Your task to perform on an android device: remove spam from my inbox in the gmail app Image 0: 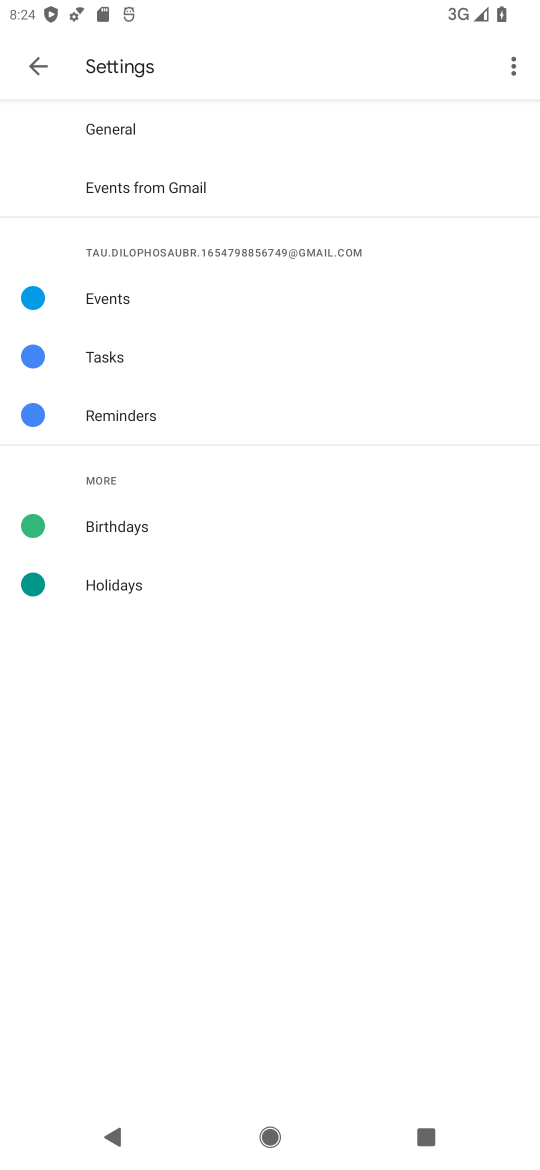
Step 0: press home button
Your task to perform on an android device: remove spam from my inbox in the gmail app Image 1: 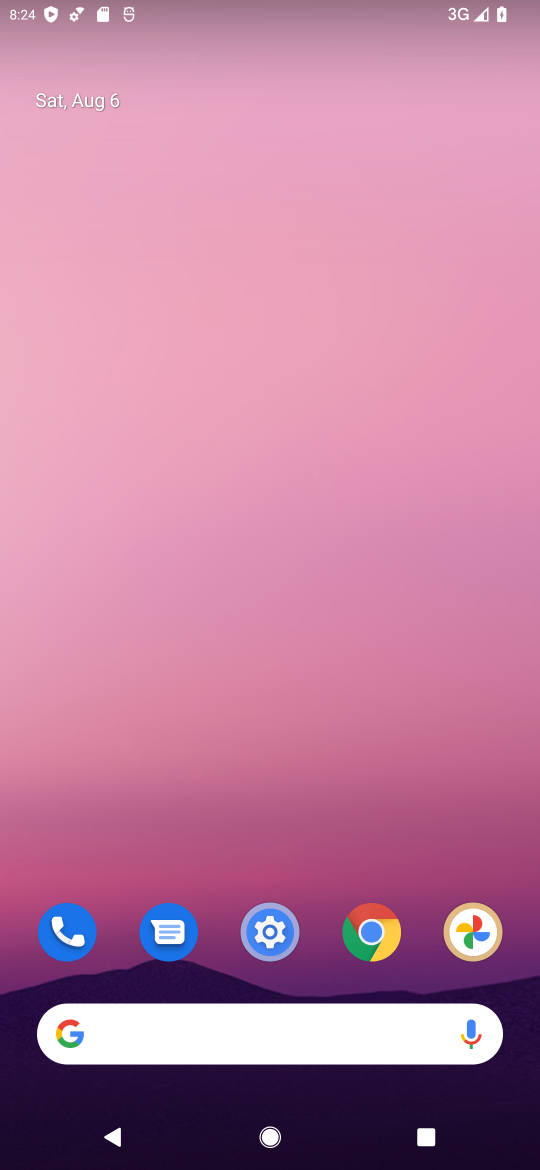
Step 1: drag from (196, 1040) to (256, 455)
Your task to perform on an android device: remove spam from my inbox in the gmail app Image 2: 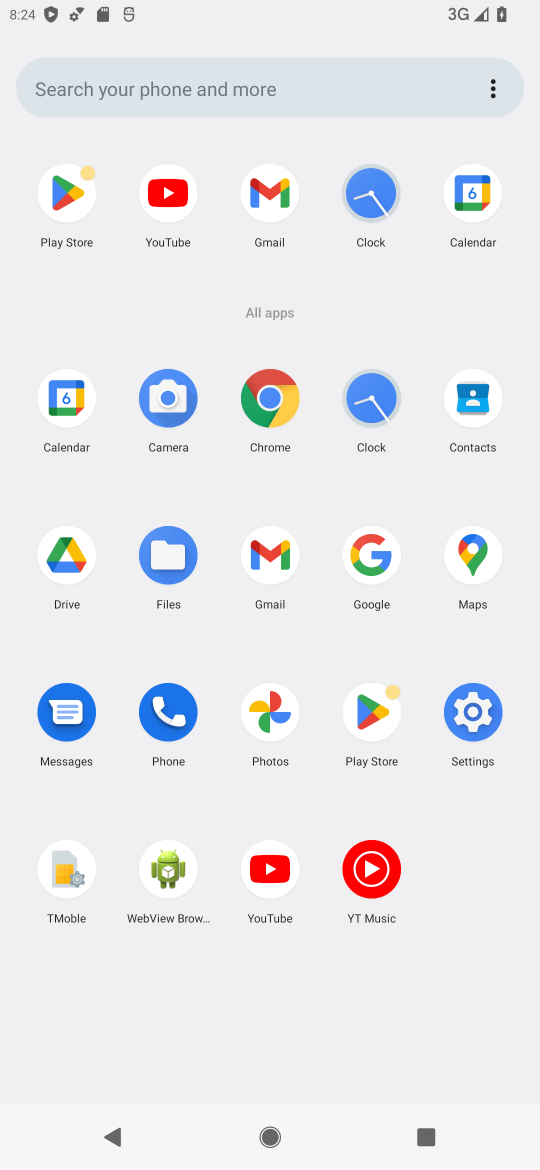
Step 2: click (267, 187)
Your task to perform on an android device: remove spam from my inbox in the gmail app Image 3: 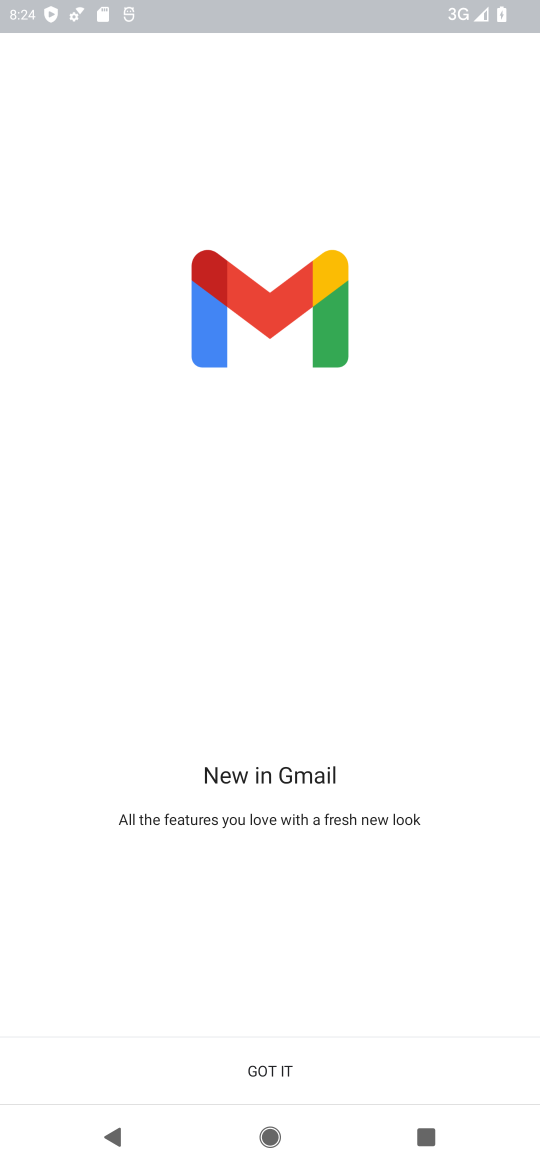
Step 3: click (269, 1064)
Your task to perform on an android device: remove spam from my inbox in the gmail app Image 4: 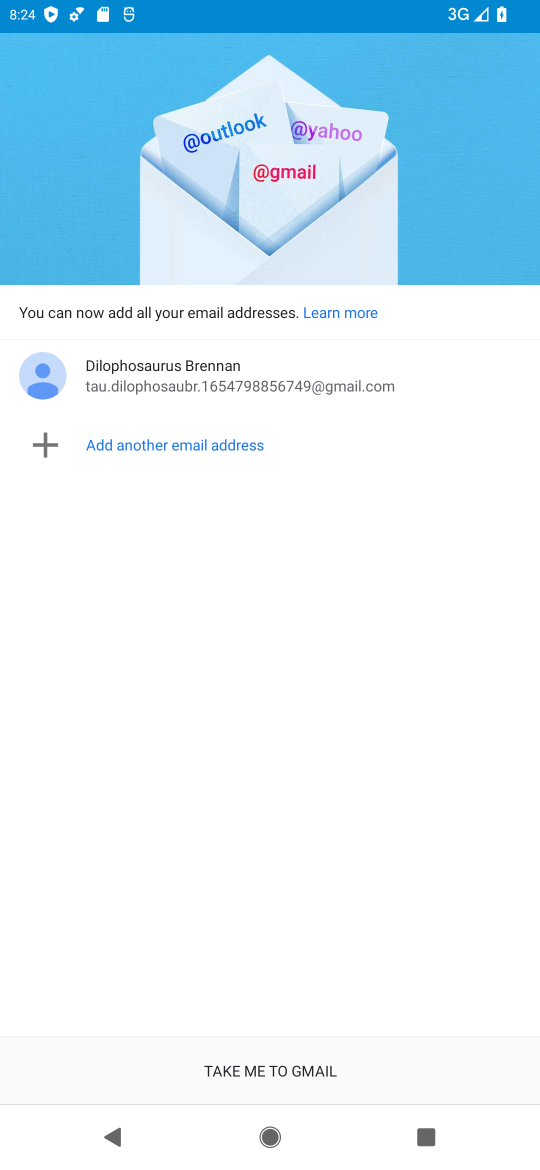
Step 4: click (269, 1064)
Your task to perform on an android device: remove spam from my inbox in the gmail app Image 5: 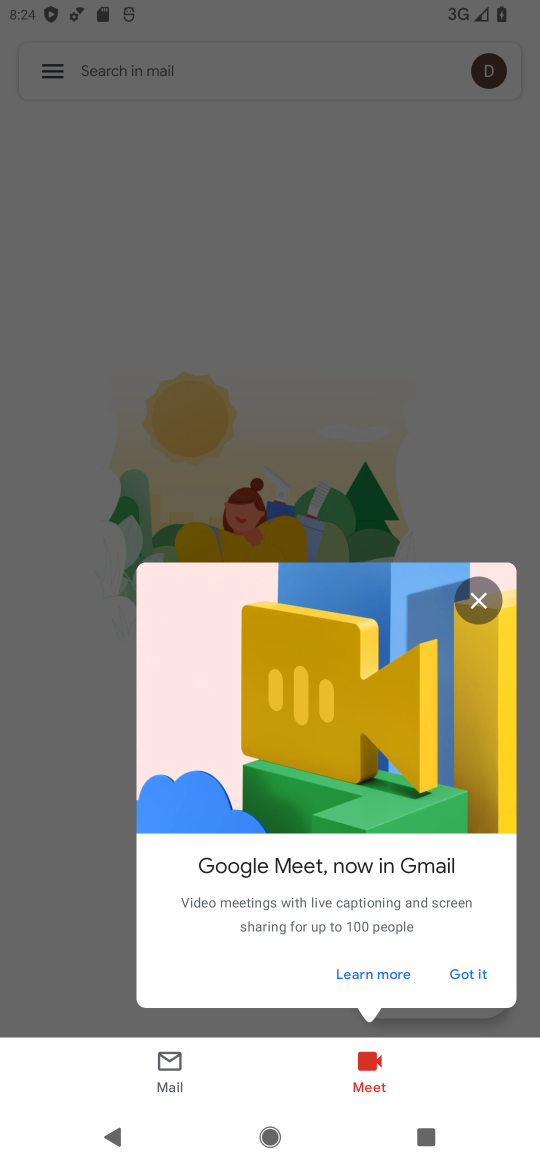
Step 5: click (454, 973)
Your task to perform on an android device: remove spam from my inbox in the gmail app Image 6: 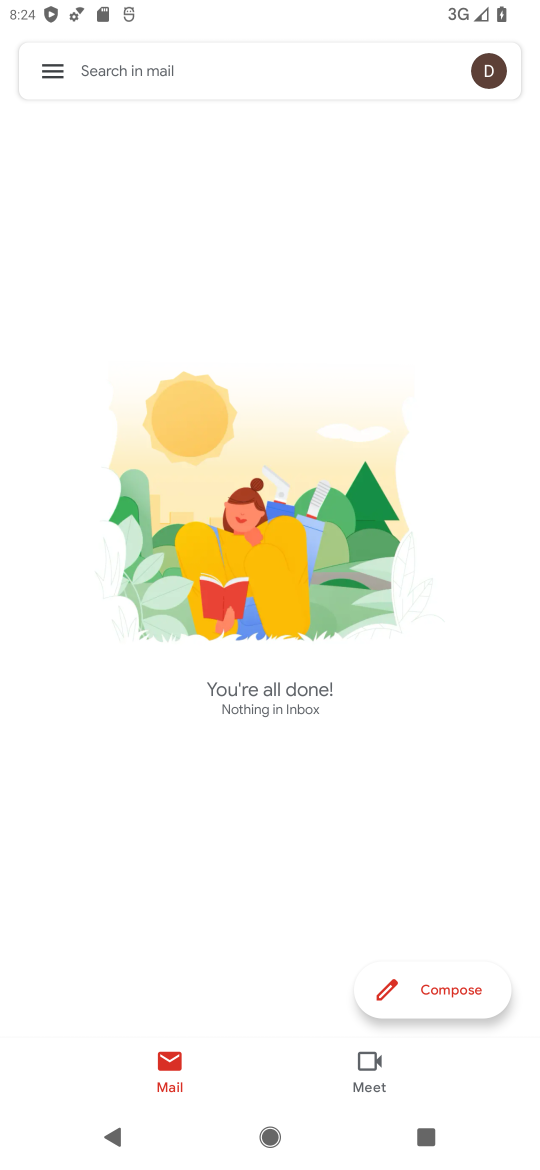
Step 6: click (50, 67)
Your task to perform on an android device: remove spam from my inbox in the gmail app Image 7: 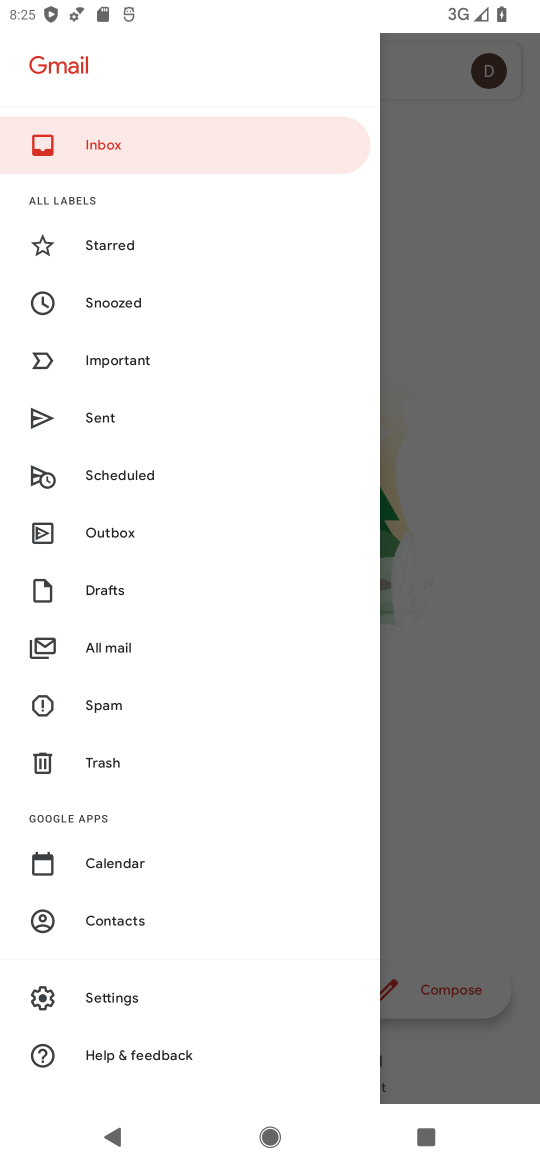
Step 7: click (105, 709)
Your task to perform on an android device: remove spam from my inbox in the gmail app Image 8: 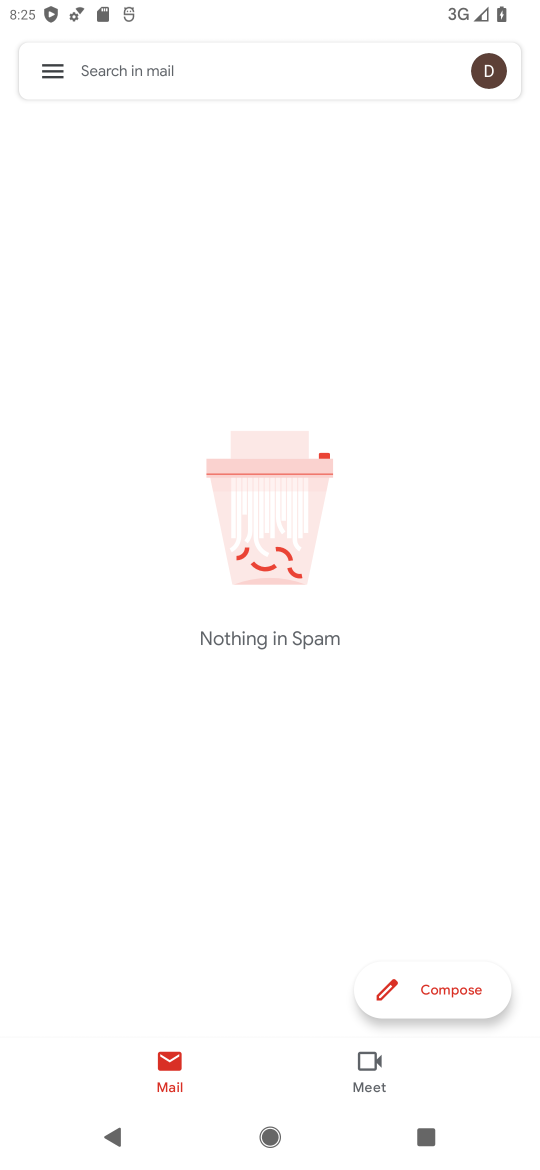
Step 8: task complete